Your task to perform on an android device: check google app version Image 0: 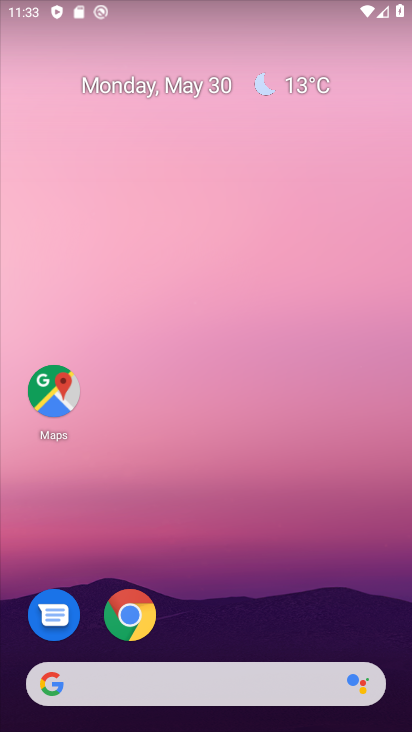
Step 0: drag from (227, 586) to (350, 86)
Your task to perform on an android device: check google app version Image 1: 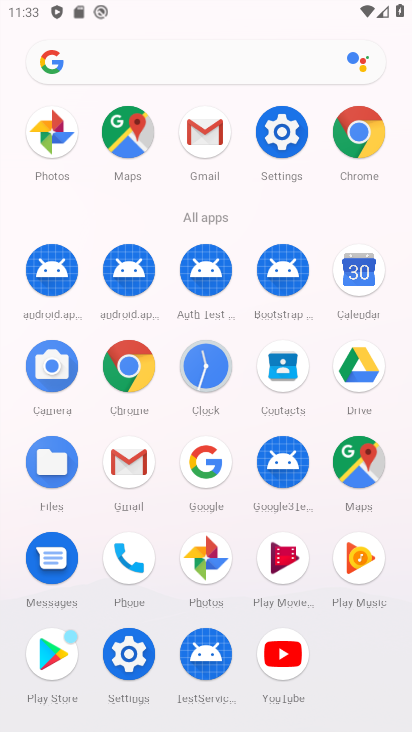
Step 1: drag from (234, 694) to (290, 418)
Your task to perform on an android device: check google app version Image 2: 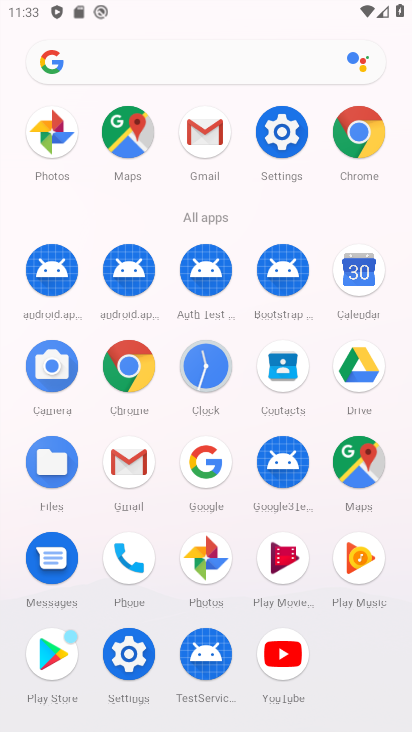
Step 2: click (132, 645)
Your task to perform on an android device: check google app version Image 3: 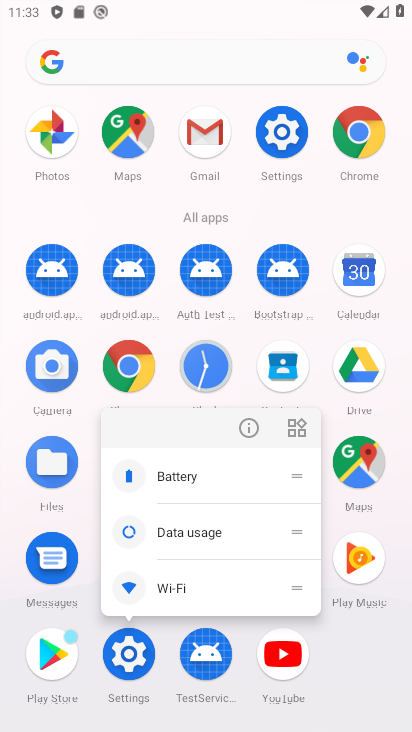
Step 3: click (132, 653)
Your task to perform on an android device: check google app version Image 4: 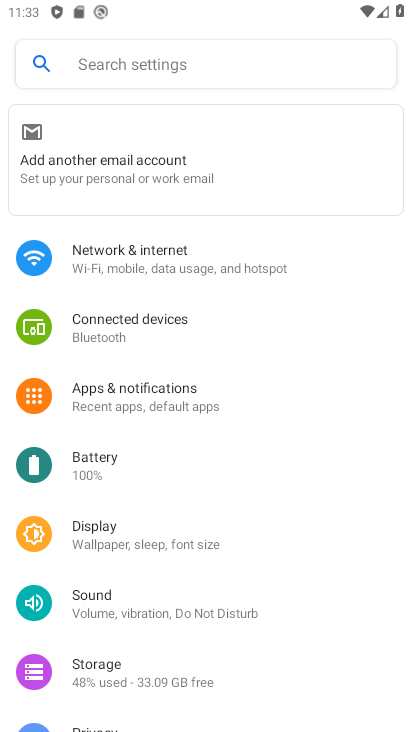
Step 4: click (168, 405)
Your task to perform on an android device: check google app version Image 5: 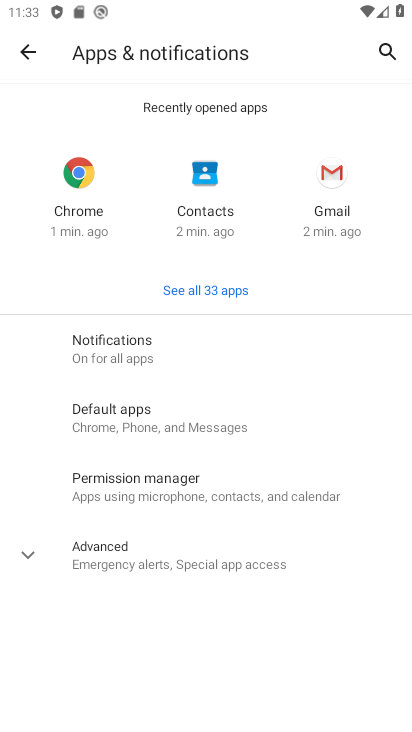
Step 5: click (215, 295)
Your task to perform on an android device: check google app version Image 6: 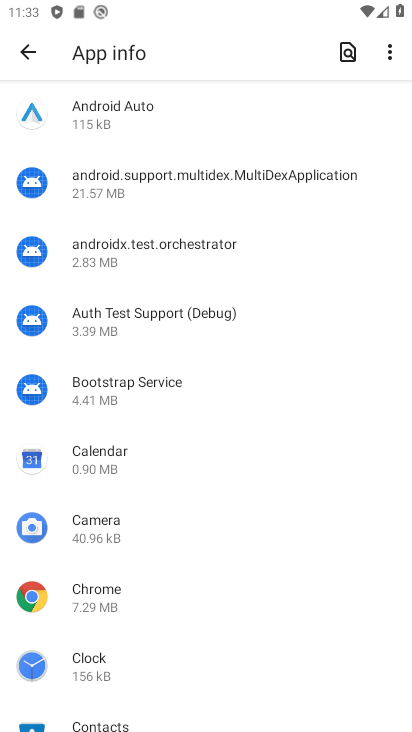
Step 6: drag from (162, 644) to (335, 72)
Your task to perform on an android device: check google app version Image 7: 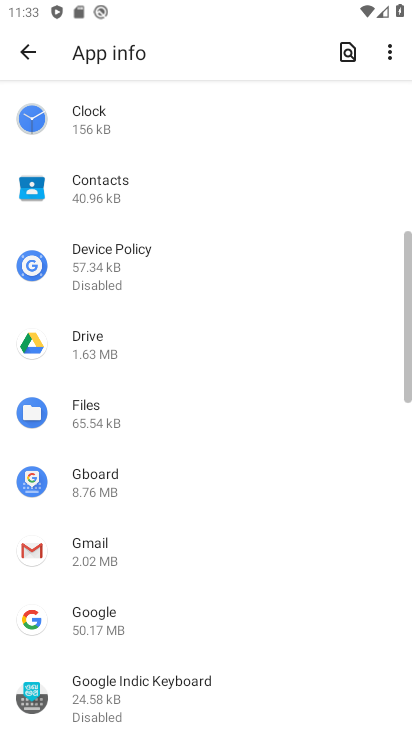
Step 7: drag from (185, 618) to (263, 299)
Your task to perform on an android device: check google app version Image 8: 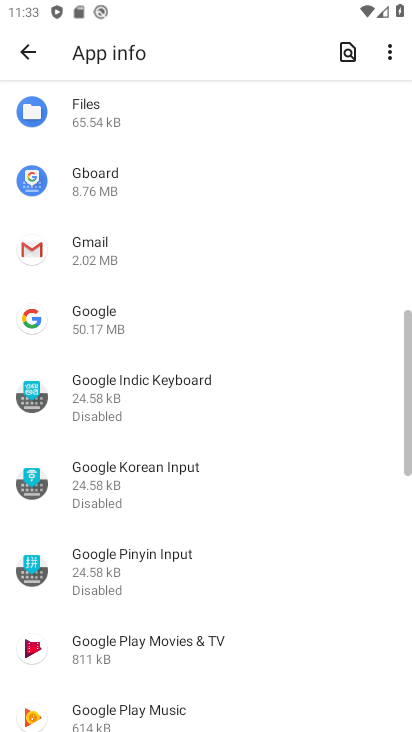
Step 8: click (155, 319)
Your task to perform on an android device: check google app version Image 9: 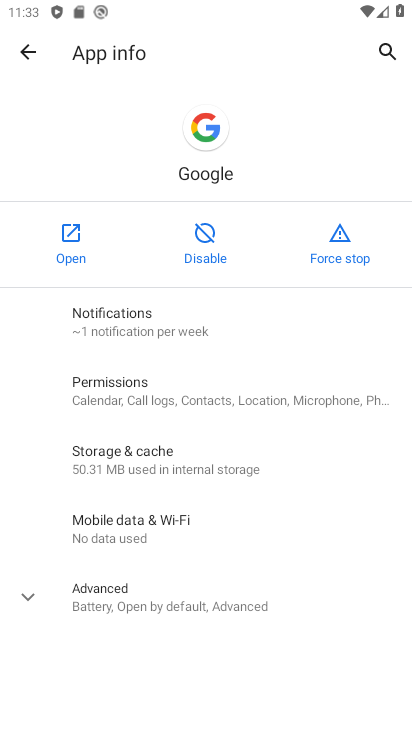
Step 9: click (183, 601)
Your task to perform on an android device: check google app version Image 10: 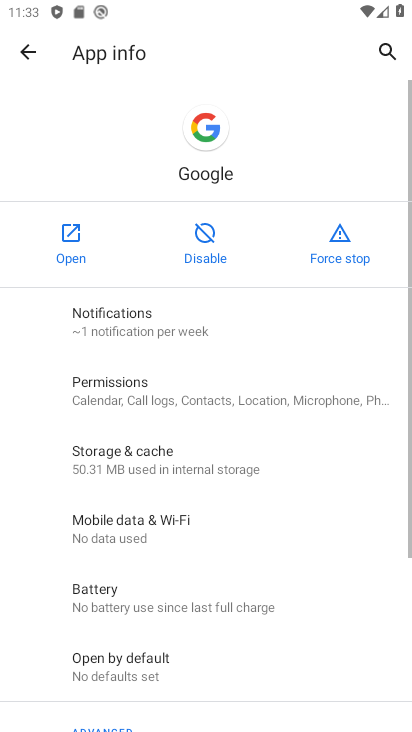
Step 10: task complete